Your task to perform on an android device: toggle show notifications on the lock screen Image 0: 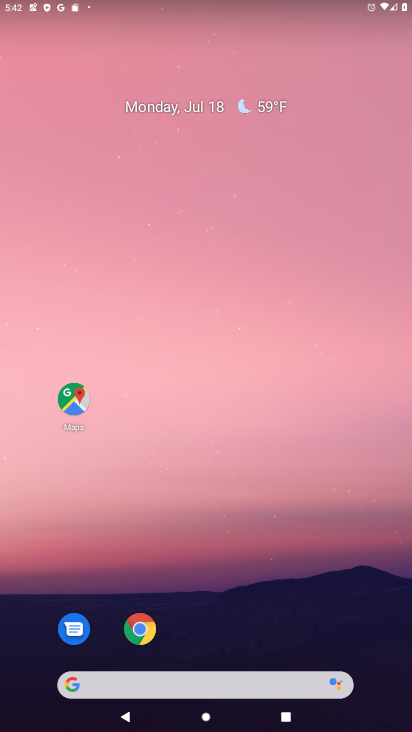
Step 0: drag from (317, 615) to (289, 132)
Your task to perform on an android device: toggle show notifications on the lock screen Image 1: 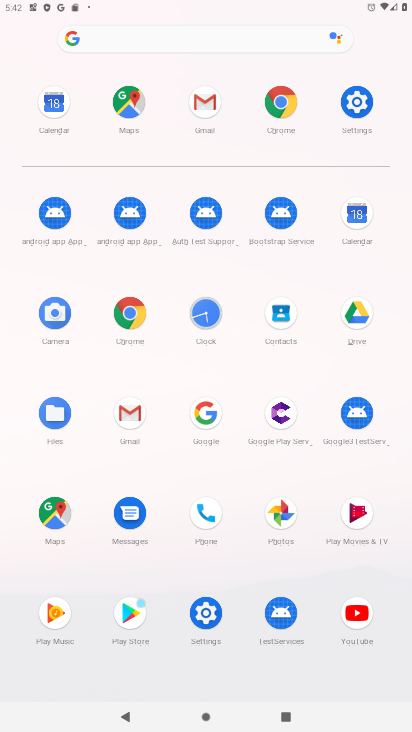
Step 1: click (366, 98)
Your task to perform on an android device: toggle show notifications on the lock screen Image 2: 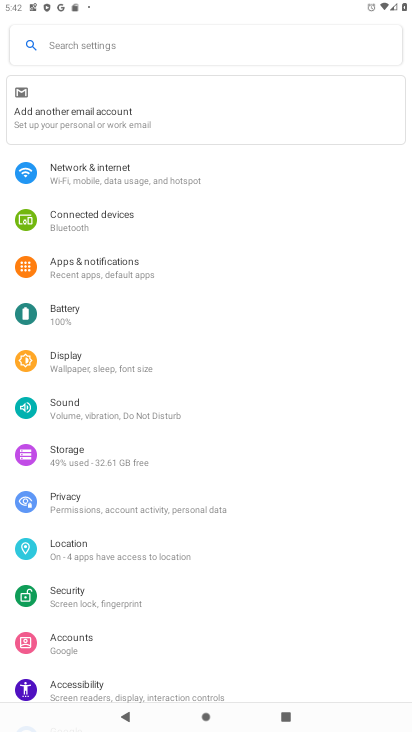
Step 2: click (119, 265)
Your task to perform on an android device: toggle show notifications on the lock screen Image 3: 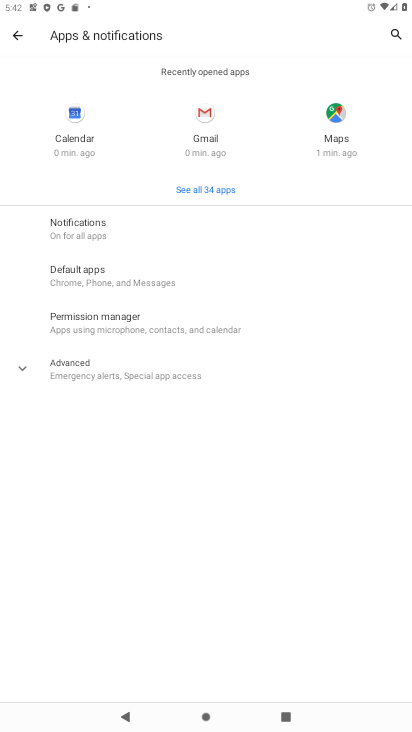
Step 3: click (98, 247)
Your task to perform on an android device: toggle show notifications on the lock screen Image 4: 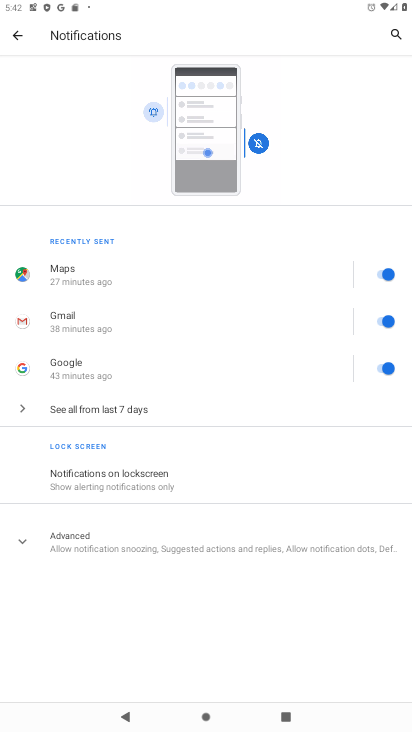
Step 4: click (167, 551)
Your task to perform on an android device: toggle show notifications on the lock screen Image 5: 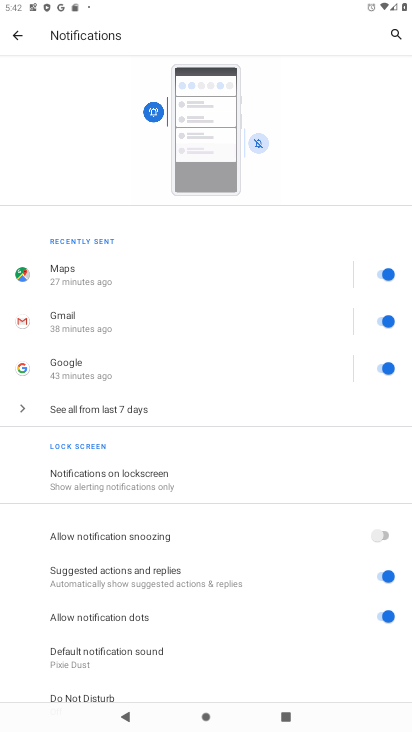
Step 5: click (163, 472)
Your task to perform on an android device: toggle show notifications on the lock screen Image 6: 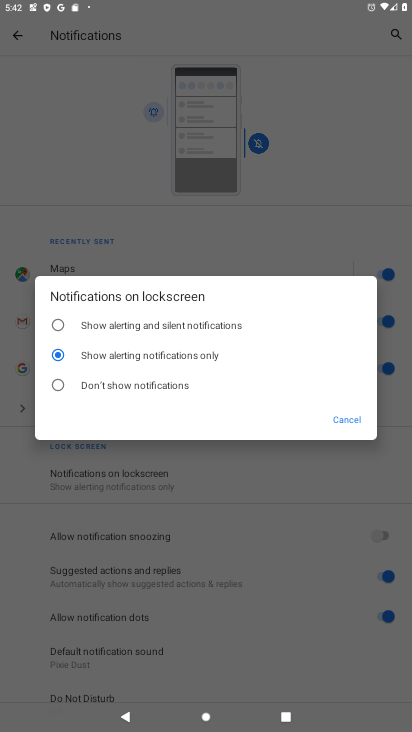
Step 6: click (208, 325)
Your task to perform on an android device: toggle show notifications on the lock screen Image 7: 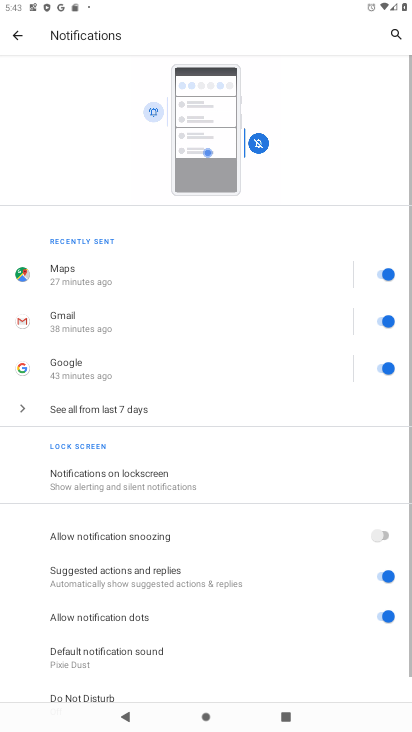
Step 7: task complete